Your task to perform on an android device: change the clock style Image 0: 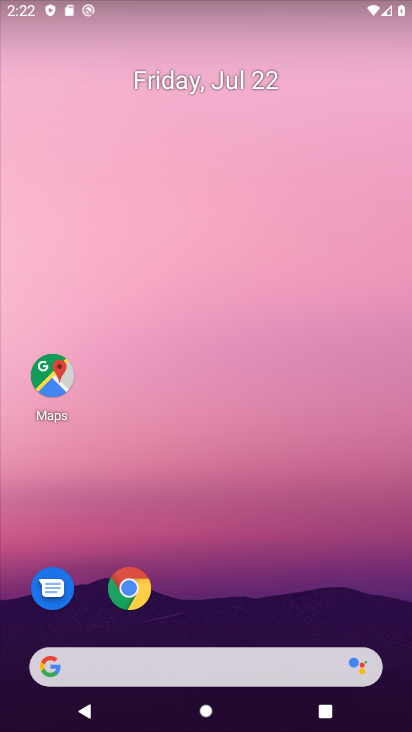
Step 0: drag from (270, 611) to (231, 208)
Your task to perform on an android device: change the clock style Image 1: 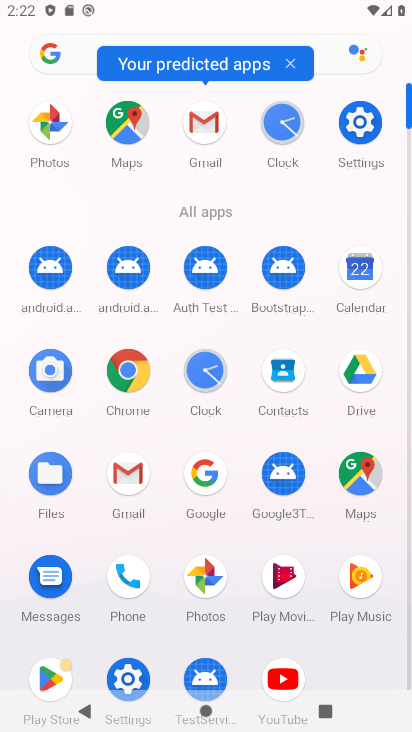
Step 1: click (290, 126)
Your task to perform on an android device: change the clock style Image 2: 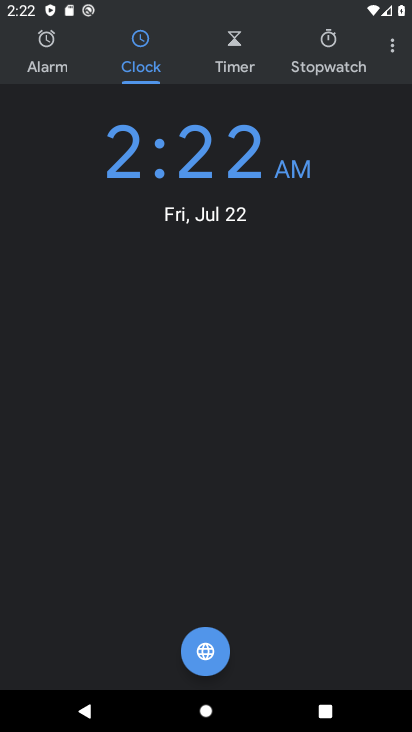
Step 2: click (391, 49)
Your task to perform on an android device: change the clock style Image 3: 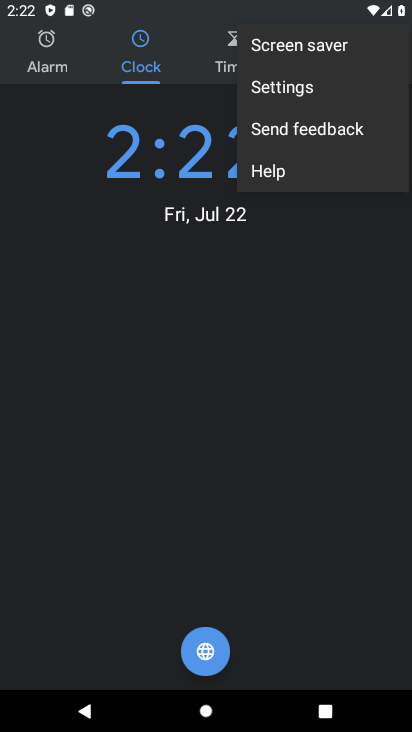
Step 3: click (351, 82)
Your task to perform on an android device: change the clock style Image 4: 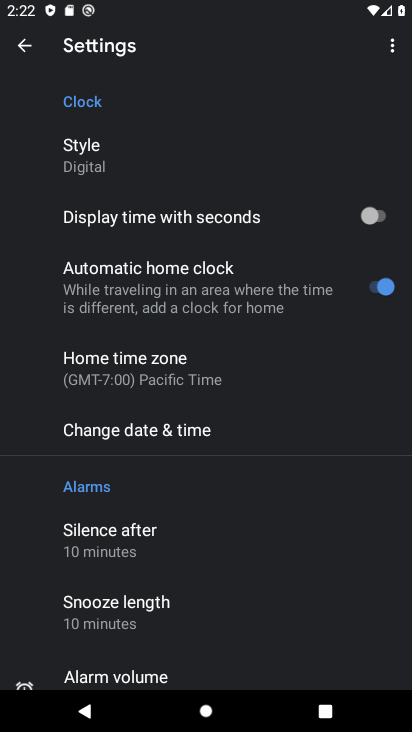
Step 4: click (258, 154)
Your task to perform on an android device: change the clock style Image 5: 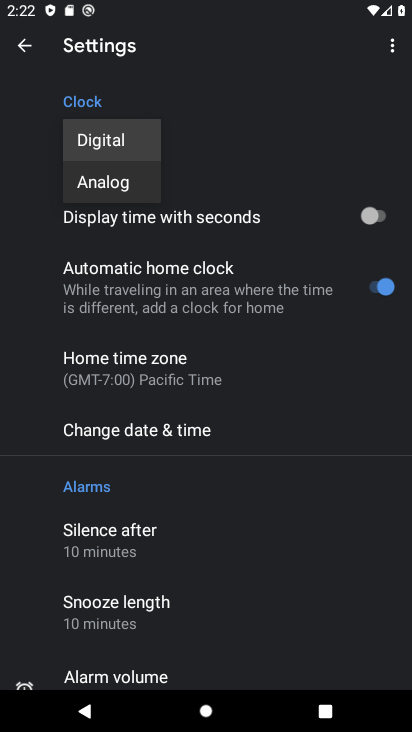
Step 5: click (158, 180)
Your task to perform on an android device: change the clock style Image 6: 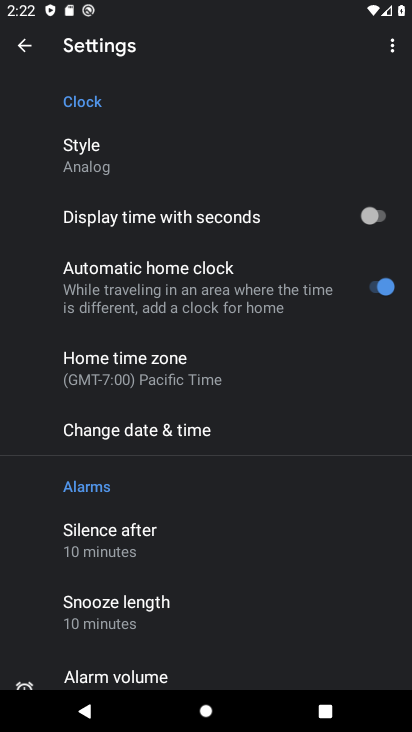
Step 6: task complete